Your task to perform on an android device: turn on sleep mode Image 0: 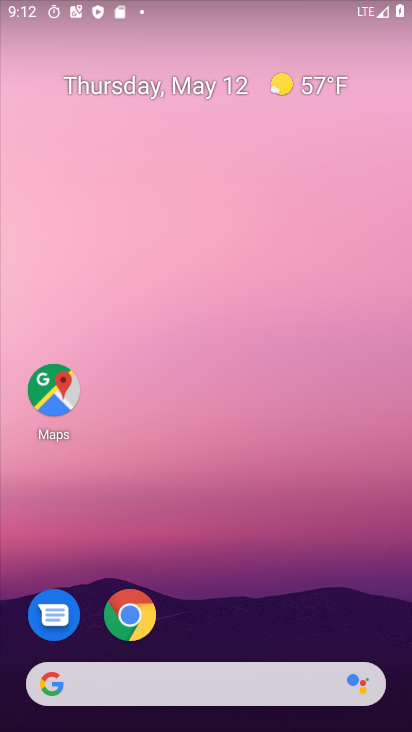
Step 0: drag from (275, 525) to (225, 19)
Your task to perform on an android device: turn on sleep mode Image 1: 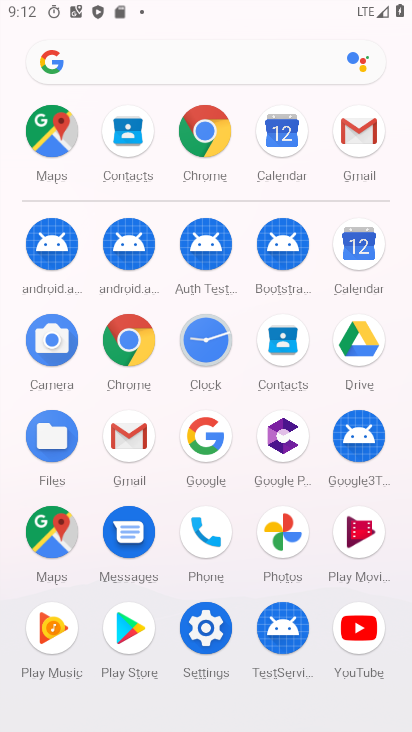
Step 1: drag from (14, 617) to (18, 333)
Your task to perform on an android device: turn on sleep mode Image 2: 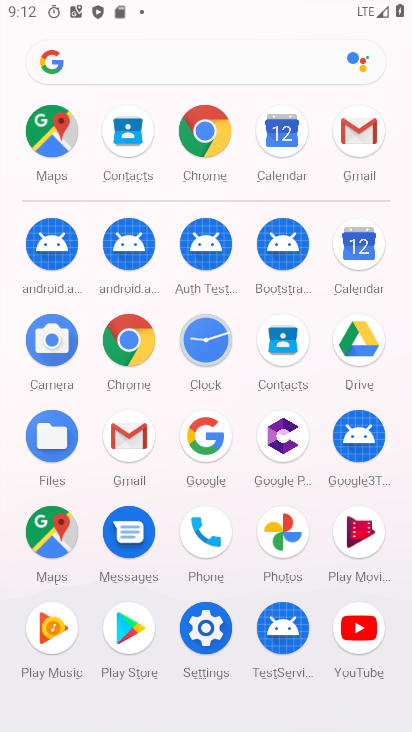
Step 2: click (203, 623)
Your task to perform on an android device: turn on sleep mode Image 3: 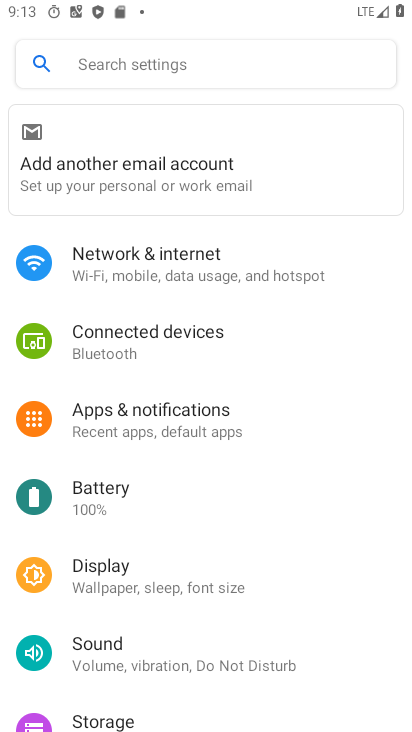
Step 3: click (181, 557)
Your task to perform on an android device: turn on sleep mode Image 4: 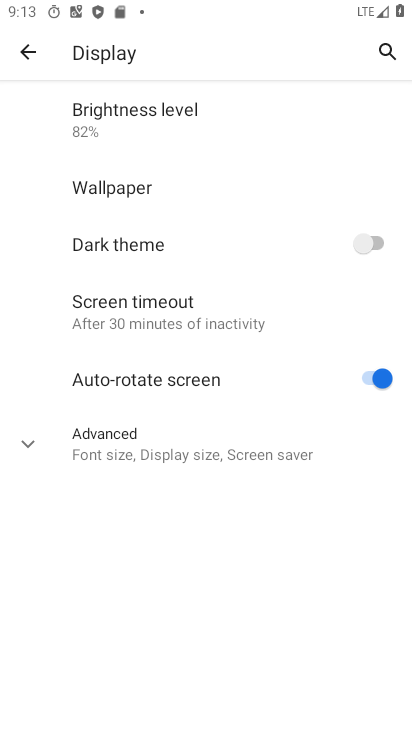
Step 4: click (44, 440)
Your task to perform on an android device: turn on sleep mode Image 5: 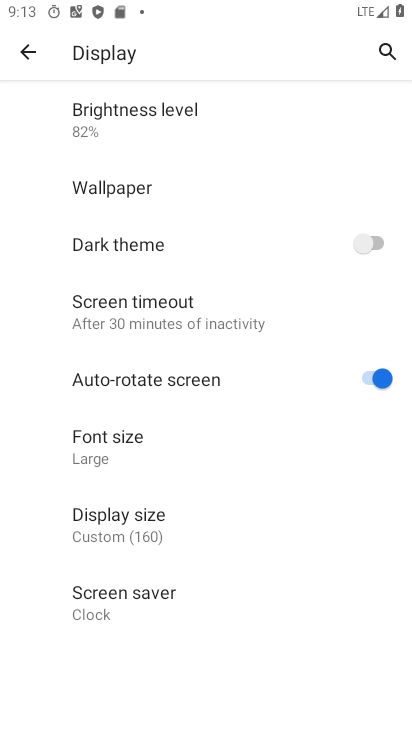
Step 5: task complete